Your task to perform on an android device: See recent photos Image 0: 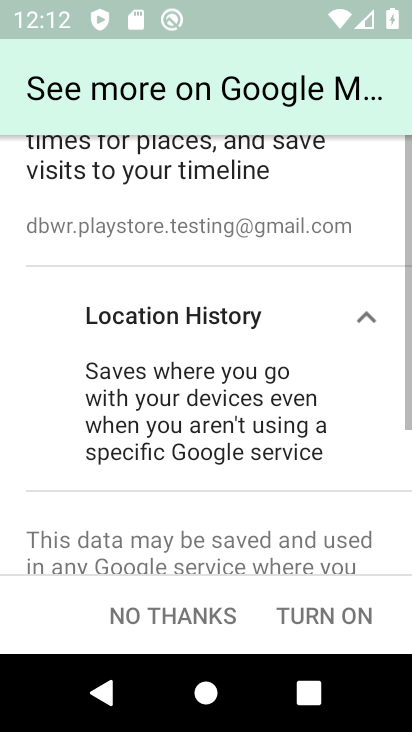
Step 0: press home button
Your task to perform on an android device: See recent photos Image 1: 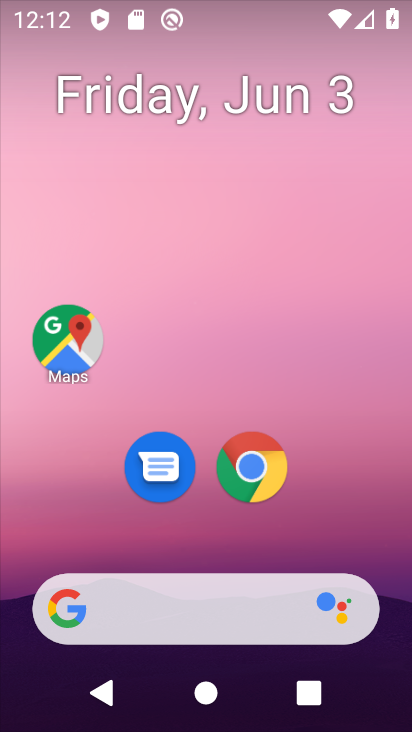
Step 1: drag from (104, 562) to (250, 16)
Your task to perform on an android device: See recent photos Image 2: 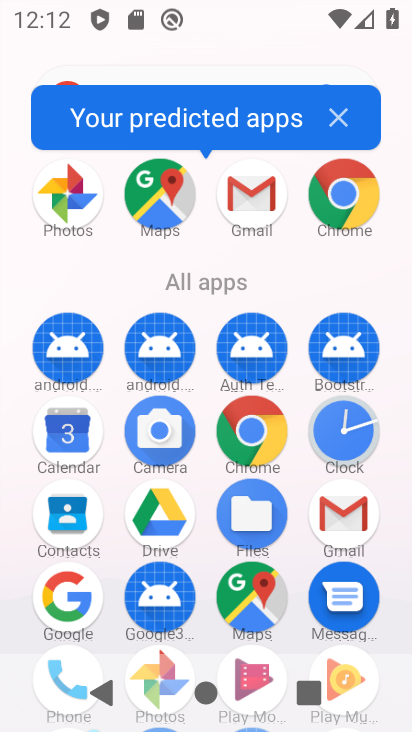
Step 2: drag from (182, 591) to (249, 320)
Your task to perform on an android device: See recent photos Image 3: 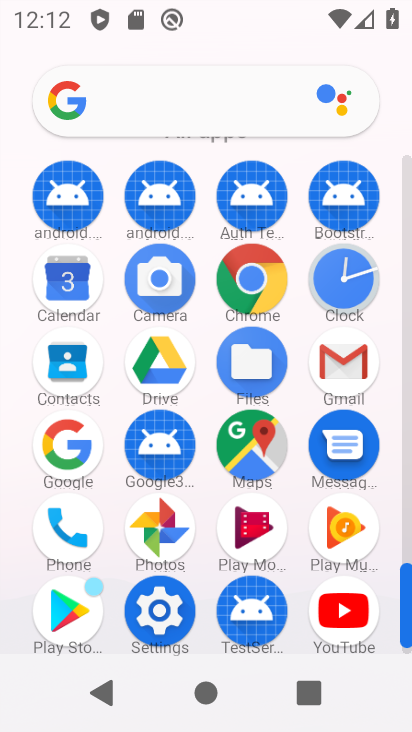
Step 3: click (151, 549)
Your task to perform on an android device: See recent photos Image 4: 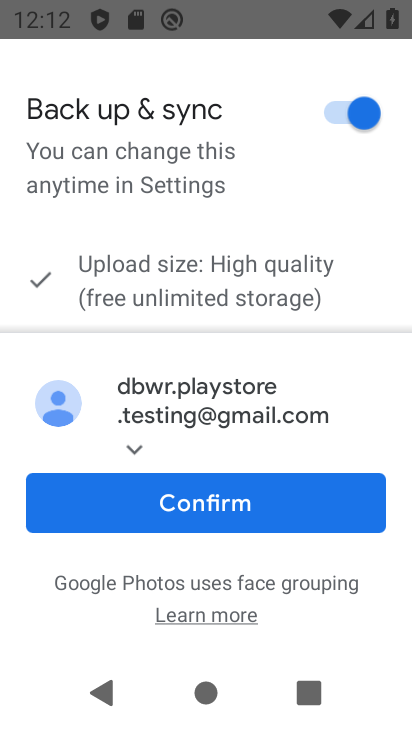
Step 4: click (229, 514)
Your task to perform on an android device: See recent photos Image 5: 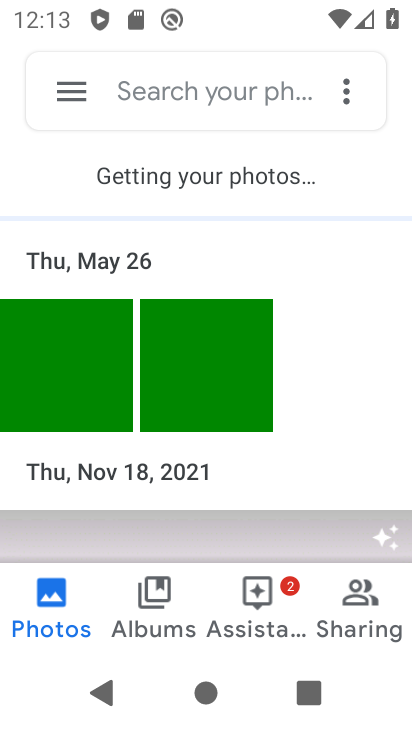
Step 5: task complete